Your task to perform on an android device: Open Maps and search for coffee Image 0: 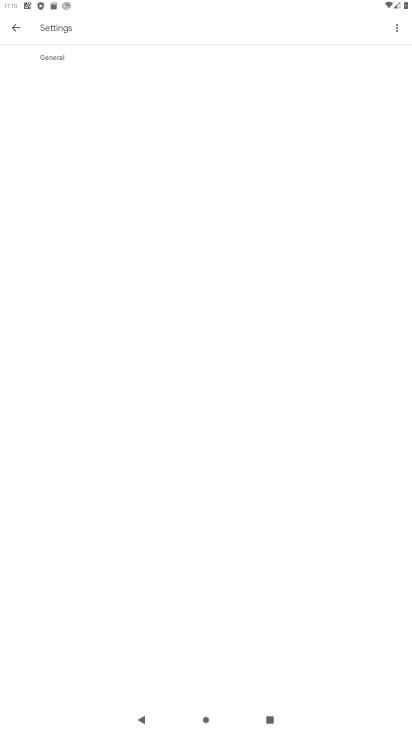
Step 0: press home button
Your task to perform on an android device: Open Maps and search for coffee Image 1: 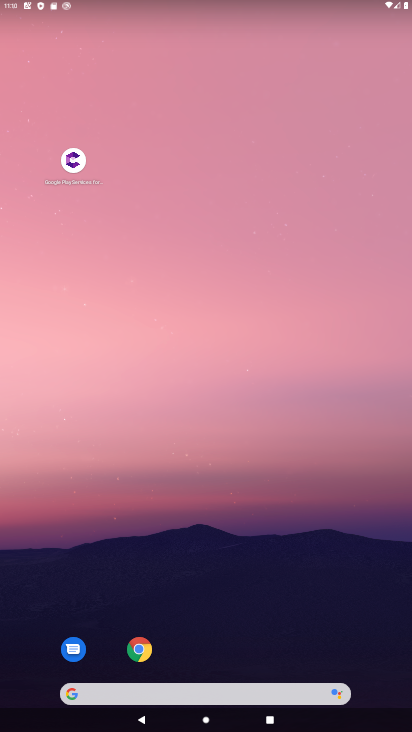
Step 1: drag from (173, 655) to (180, 33)
Your task to perform on an android device: Open Maps and search for coffee Image 2: 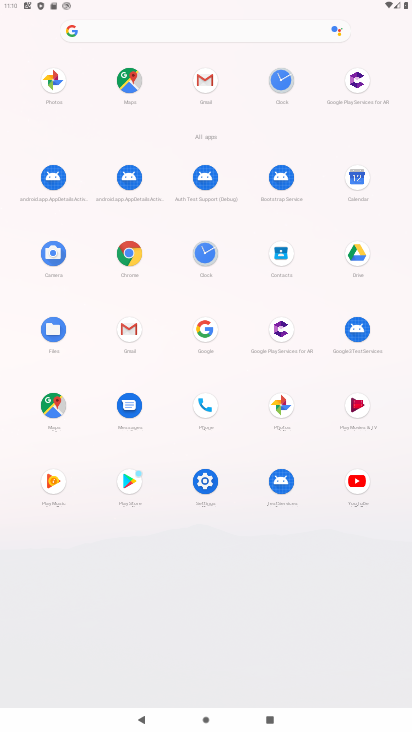
Step 2: click (141, 77)
Your task to perform on an android device: Open Maps and search for coffee Image 3: 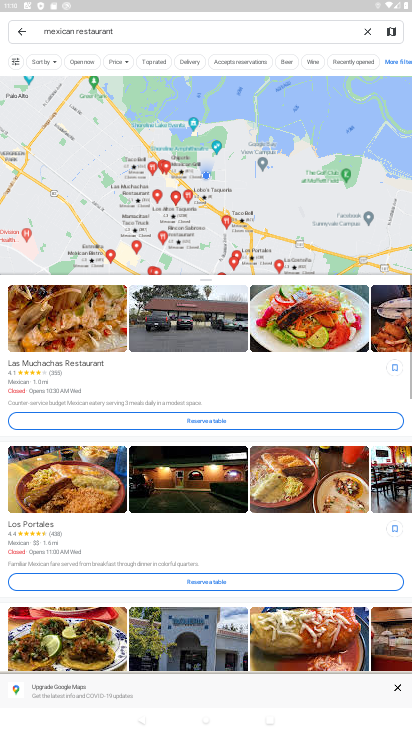
Step 3: click (366, 28)
Your task to perform on an android device: Open Maps and search for coffee Image 4: 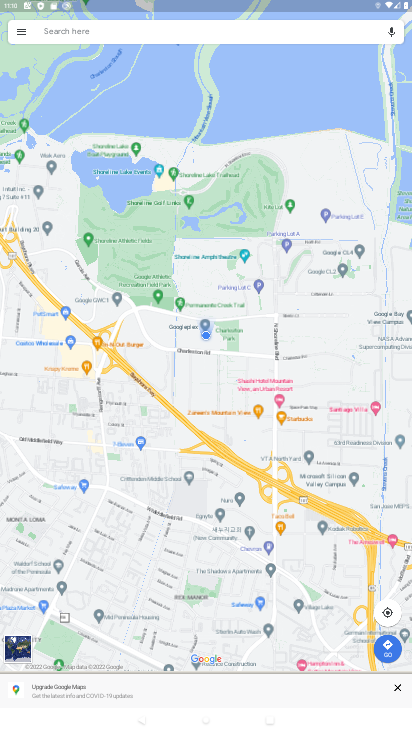
Step 4: click (246, 27)
Your task to perform on an android device: Open Maps and search for coffee Image 5: 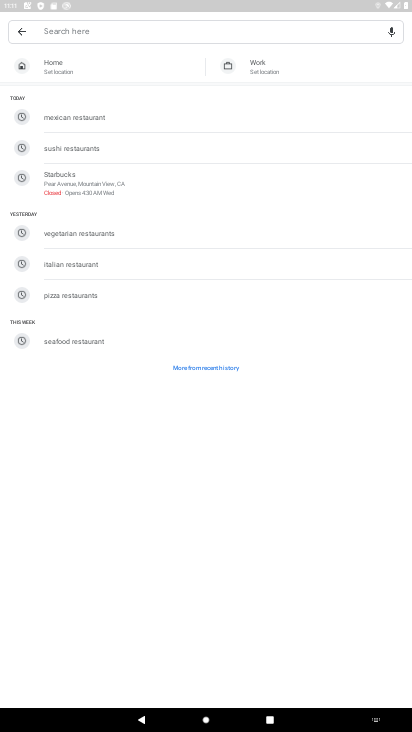
Step 5: type "coffee"
Your task to perform on an android device: Open Maps and search for coffee Image 6: 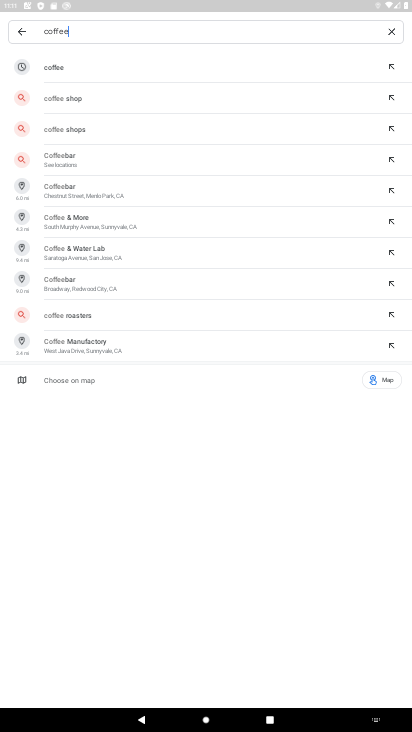
Step 6: click (27, 69)
Your task to perform on an android device: Open Maps and search for coffee Image 7: 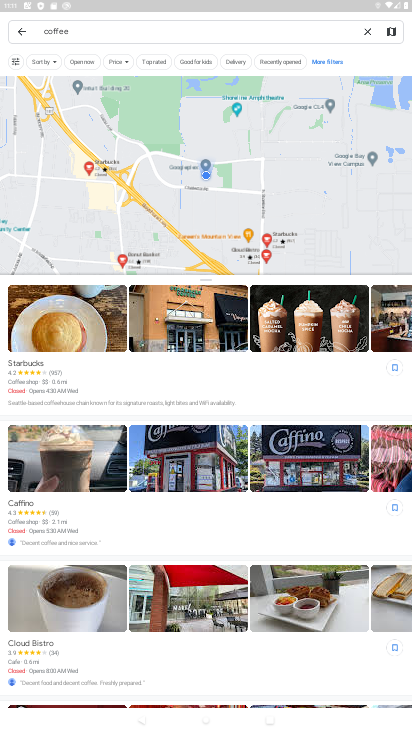
Step 7: task complete